Your task to perform on an android device: Set the phone to "Do not disturb". Image 0: 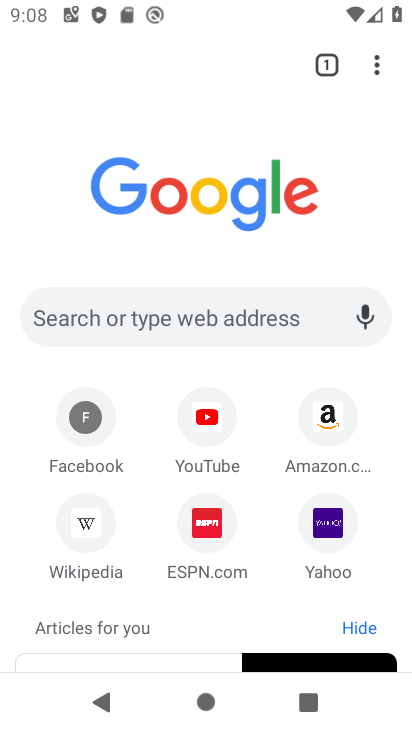
Step 0: press home button
Your task to perform on an android device: Set the phone to "Do not disturb". Image 1: 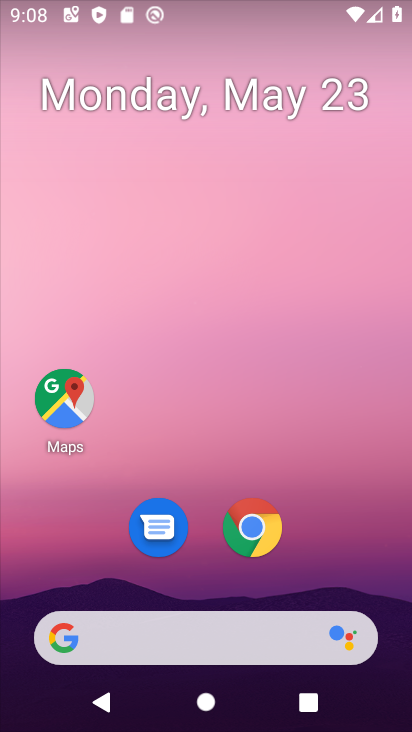
Step 1: drag from (263, 431) to (270, 15)
Your task to perform on an android device: Set the phone to "Do not disturb". Image 2: 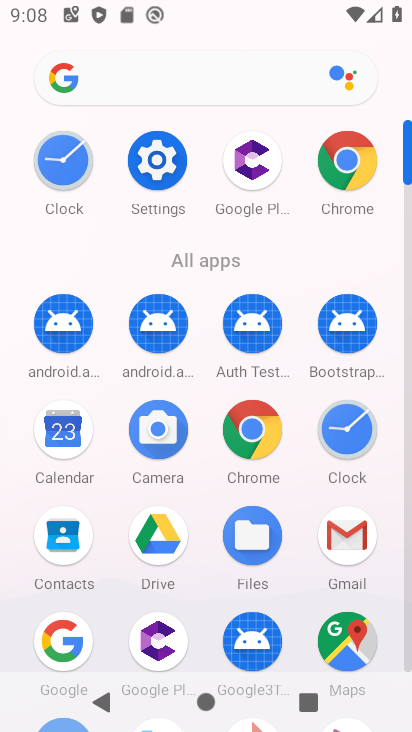
Step 2: click (153, 167)
Your task to perform on an android device: Set the phone to "Do not disturb". Image 3: 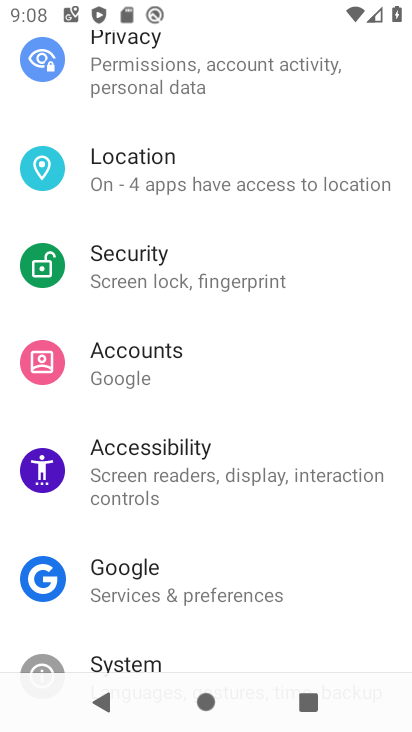
Step 3: drag from (246, 234) to (300, 639)
Your task to perform on an android device: Set the phone to "Do not disturb". Image 4: 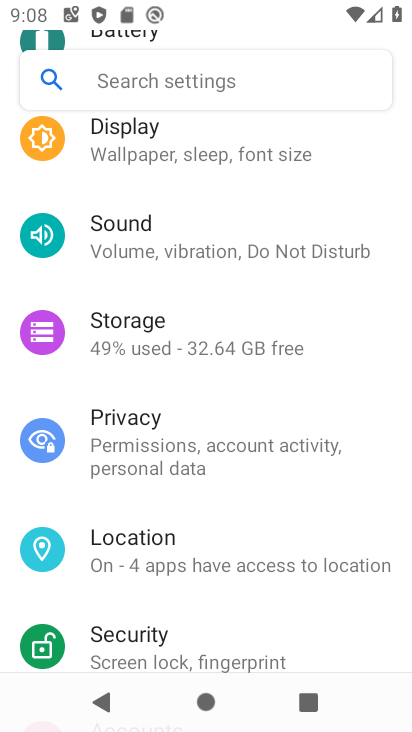
Step 4: click (241, 241)
Your task to perform on an android device: Set the phone to "Do not disturb". Image 5: 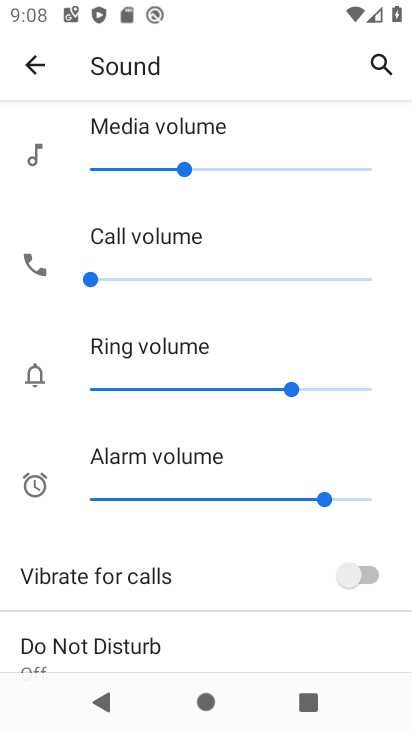
Step 5: drag from (217, 504) to (208, 243)
Your task to perform on an android device: Set the phone to "Do not disturb". Image 6: 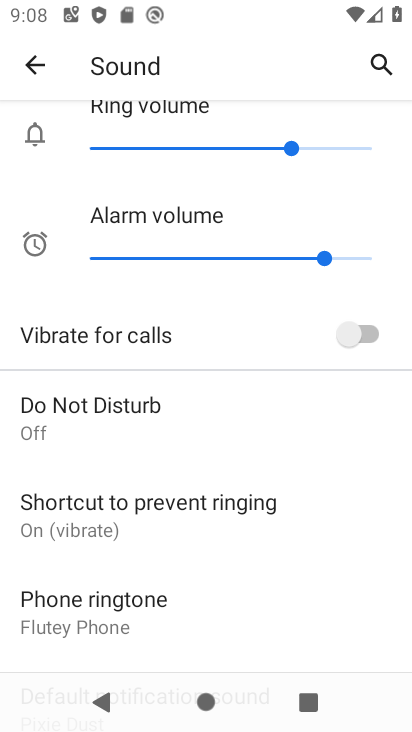
Step 6: click (125, 407)
Your task to perform on an android device: Set the phone to "Do not disturb". Image 7: 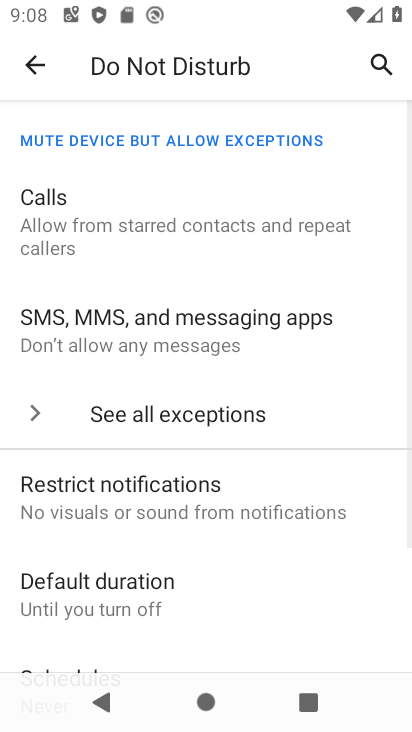
Step 7: drag from (157, 541) to (176, 224)
Your task to perform on an android device: Set the phone to "Do not disturb". Image 8: 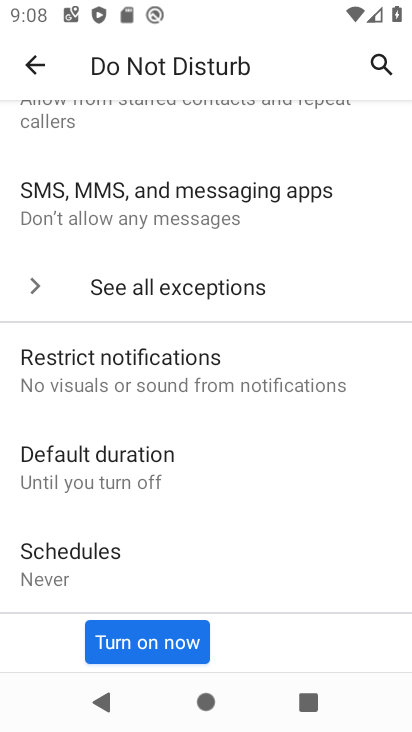
Step 8: click (181, 644)
Your task to perform on an android device: Set the phone to "Do not disturb". Image 9: 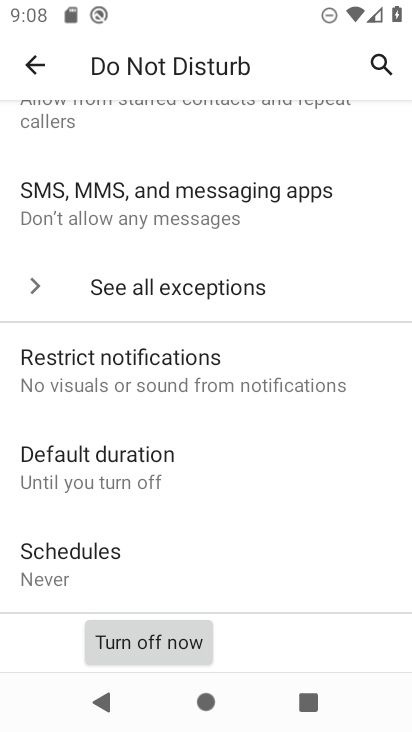
Step 9: click (39, 61)
Your task to perform on an android device: Set the phone to "Do not disturb". Image 10: 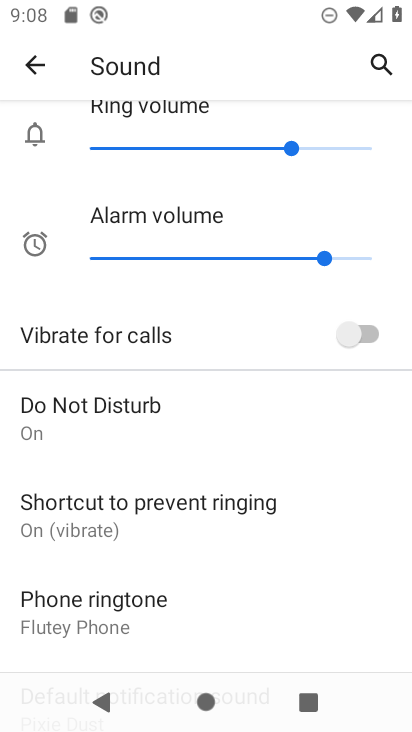
Step 10: task complete